Your task to perform on an android device: toggle improve location accuracy Image 0: 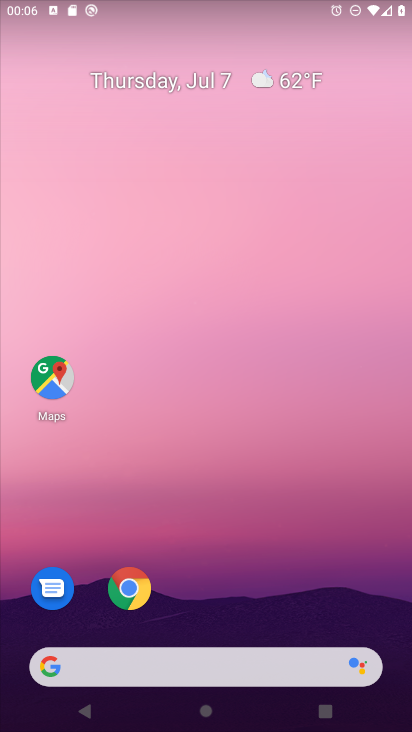
Step 0: drag from (364, 616) to (349, 132)
Your task to perform on an android device: toggle improve location accuracy Image 1: 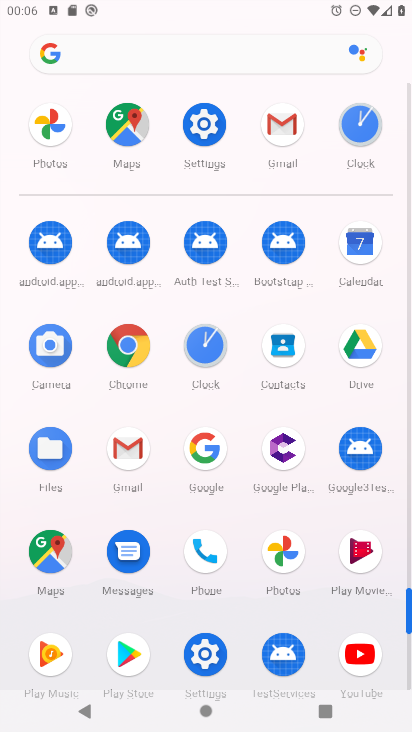
Step 1: click (203, 653)
Your task to perform on an android device: toggle improve location accuracy Image 2: 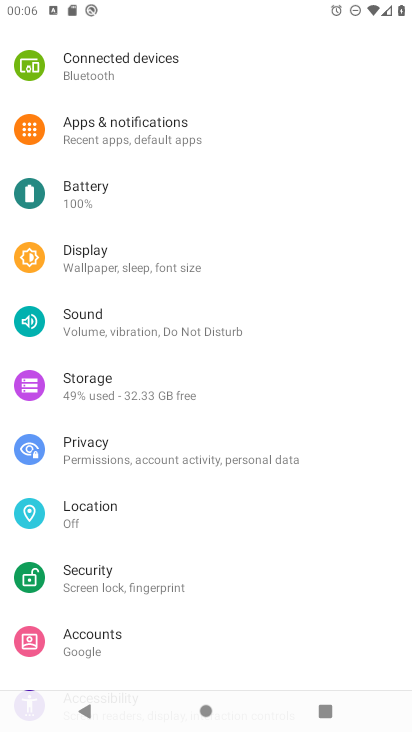
Step 2: click (77, 502)
Your task to perform on an android device: toggle improve location accuracy Image 3: 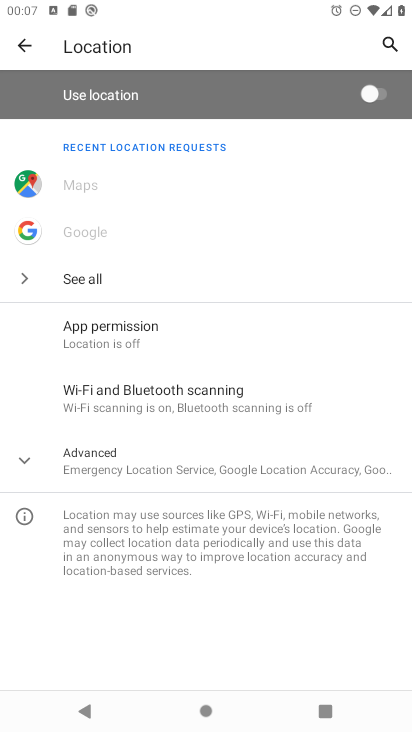
Step 3: click (53, 468)
Your task to perform on an android device: toggle improve location accuracy Image 4: 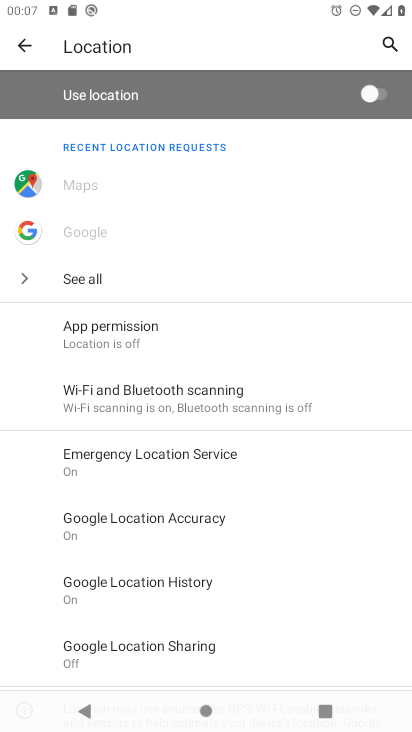
Step 4: click (117, 518)
Your task to perform on an android device: toggle improve location accuracy Image 5: 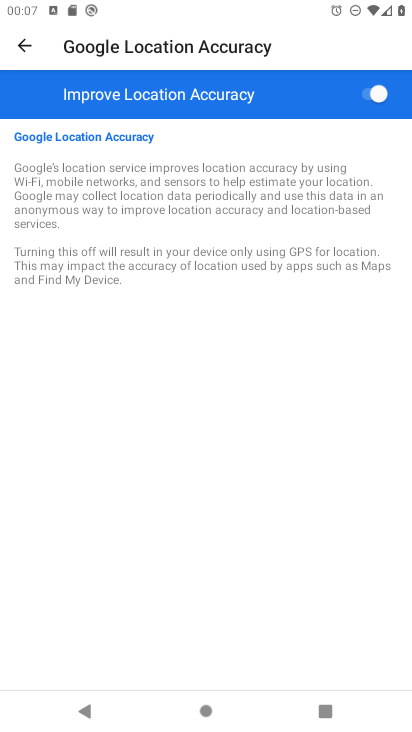
Step 5: click (363, 92)
Your task to perform on an android device: toggle improve location accuracy Image 6: 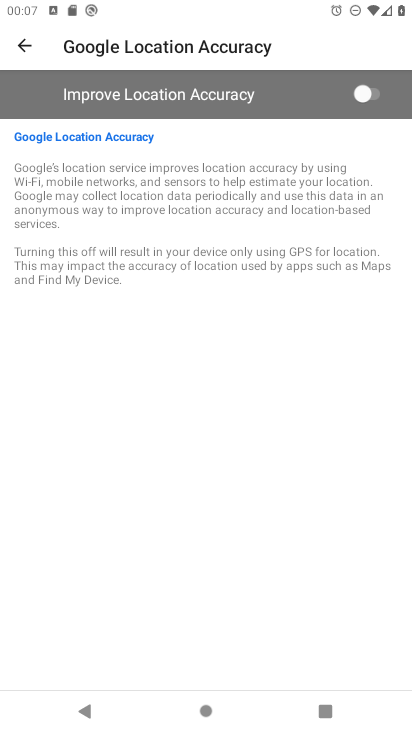
Step 6: task complete